Your task to perform on an android device: Open Google Maps and go to "Timeline" Image 0: 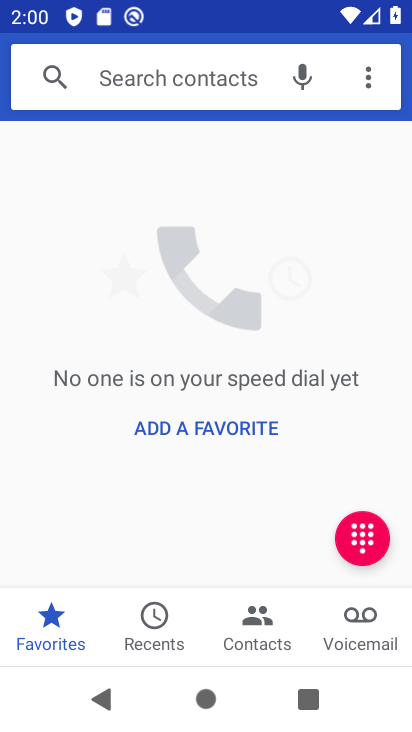
Step 0: press home button
Your task to perform on an android device: Open Google Maps and go to "Timeline" Image 1: 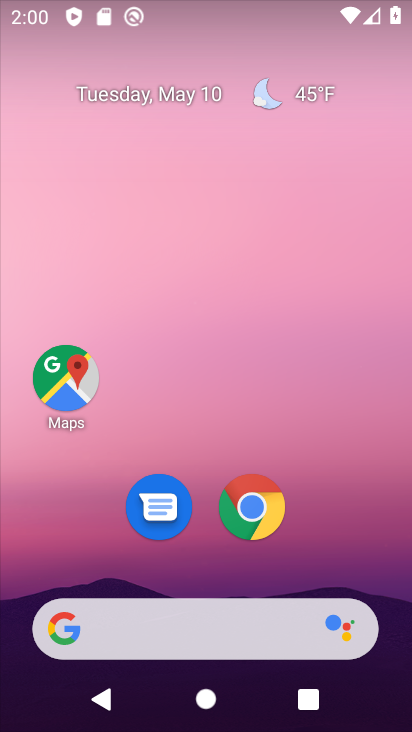
Step 1: click (49, 372)
Your task to perform on an android device: Open Google Maps and go to "Timeline" Image 2: 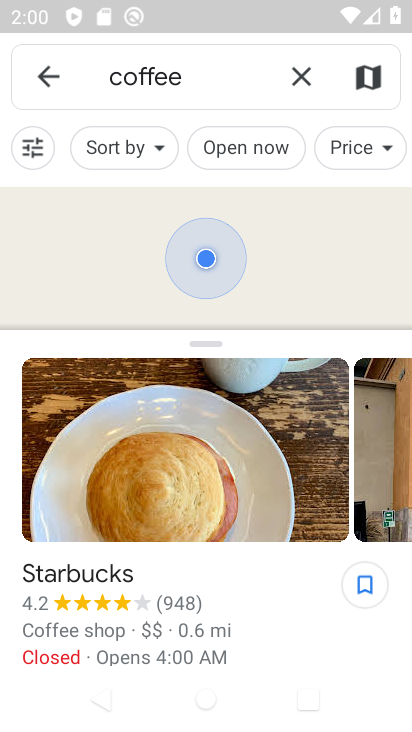
Step 2: press back button
Your task to perform on an android device: Open Google Maps and go to "Timeline" Image 3: 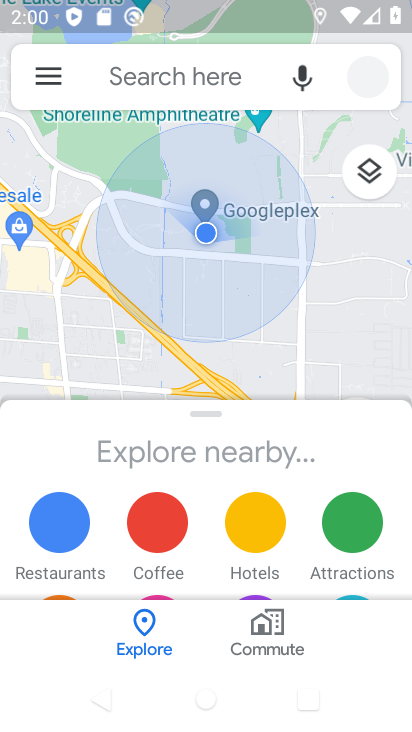
Step 3: click (49, 80)
Your task to perform on an android device: Open Google Maps and go to "Timeline" Image 4: 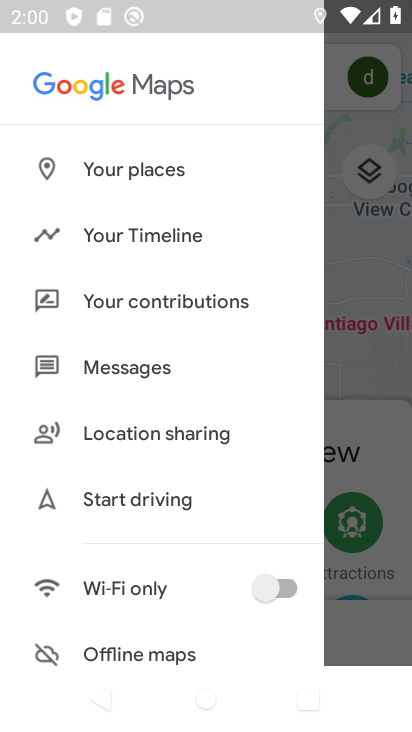
Step 4: click (106, 235)
Your task to perform on an android device: Open Google Maps and go to "Timeline" Image 5: 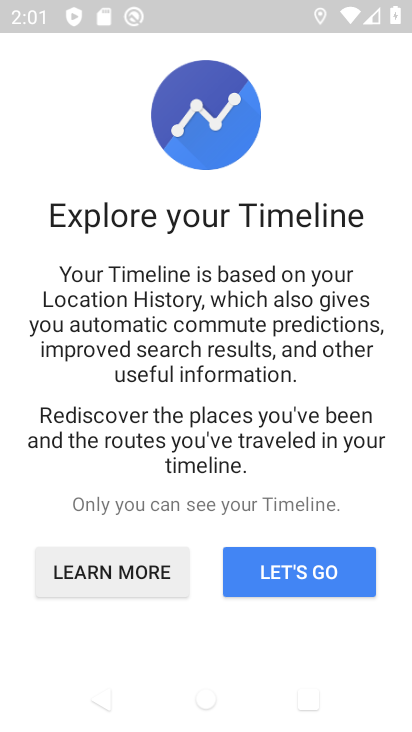
Step 5: click (257, 585)
Your task to perform on an android device: Open Google Maps and go to "Timeline" Image 6: 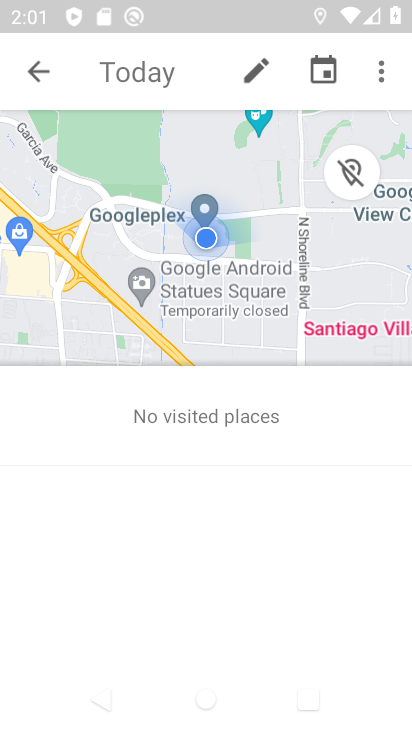
Step 6: click (25, 74)
Your task to perform on an android device: Open Google Maps and go to "Timeline" Image 7: 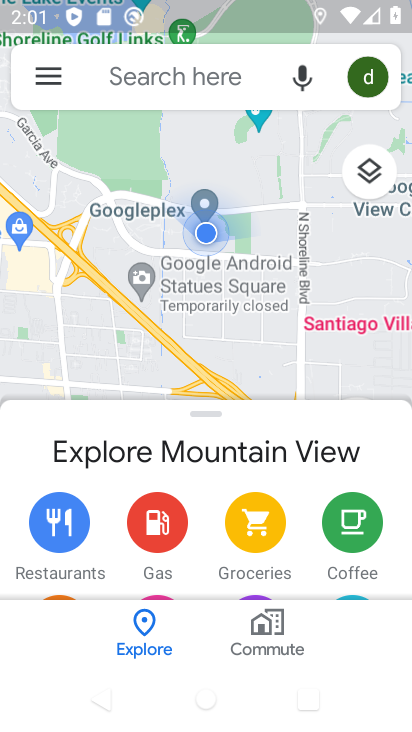
Step 7: click (39, 76)
Your task to perform on an android device: Open Google Maps and go to "Timeline" Image 8: 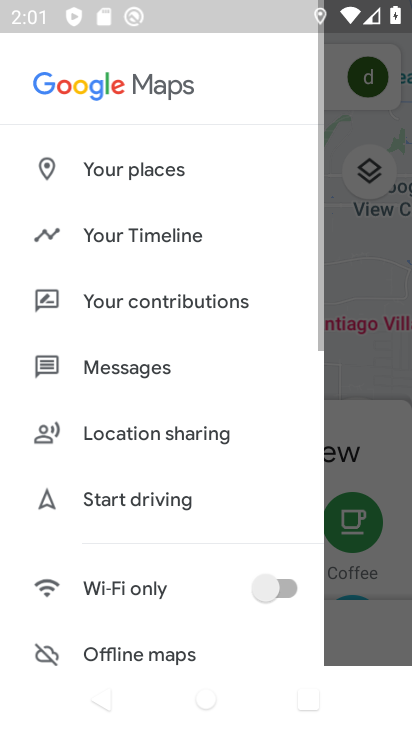
Step 8: click (78, 231)
Your task to perform on an android device: Open Google Maps and go to "Timeline" Image 9: 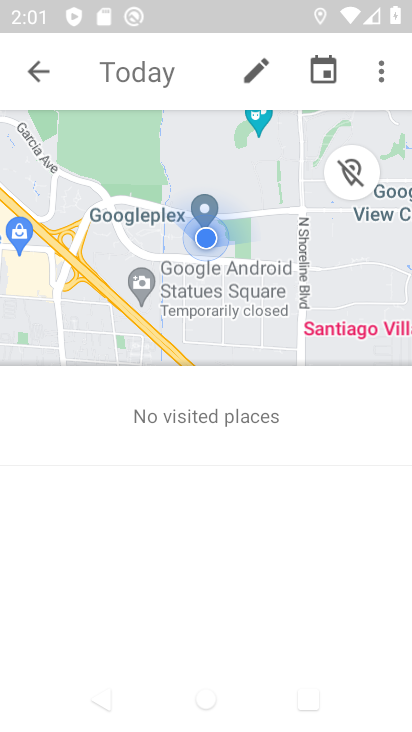
Step 9: task complete